Your task to perform on an android device: Go to CNN.com Image 0: 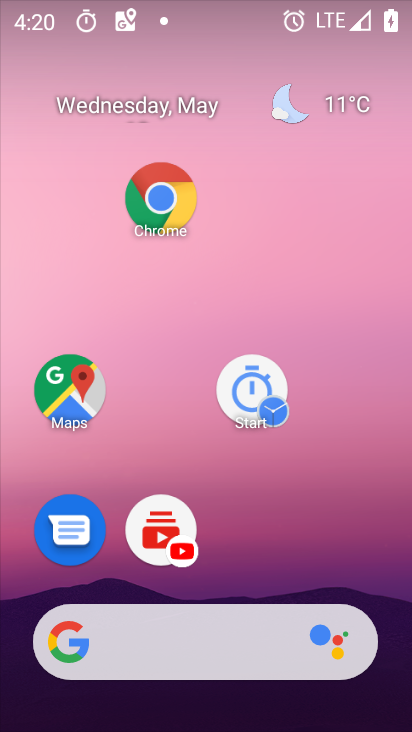
Step 0: drag from (256, 720) to (86, 98)
Your task to perform on an android device: Go to CNN.com Image 1: 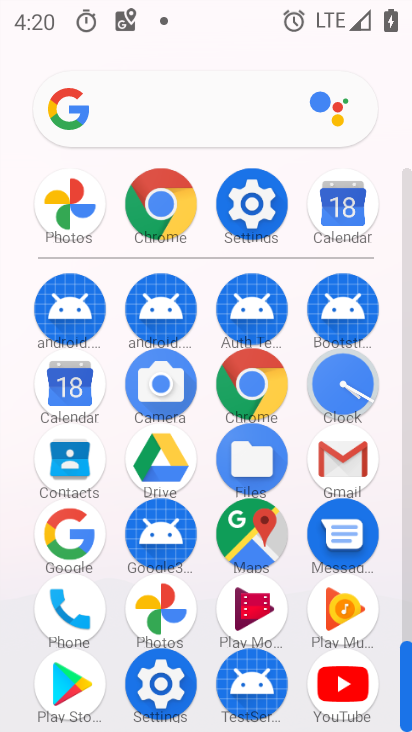
Step 1: click (166, 212)
Your task to perform on an android device: Go to CNN.com Image 2: 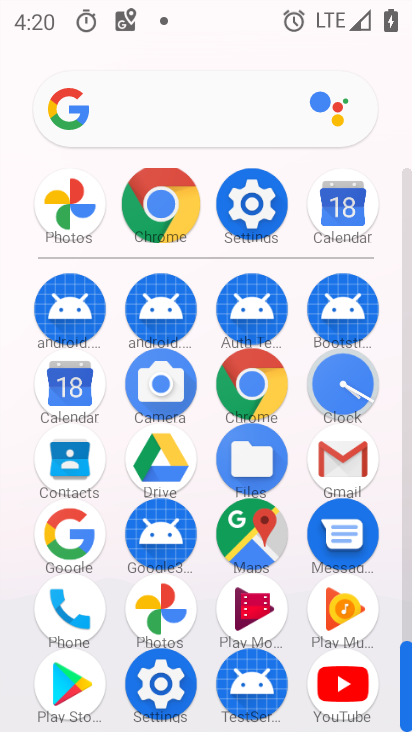
Step 2: click (166, 212)
Your task to perform on an android device: Go to CNN.com Image 3: 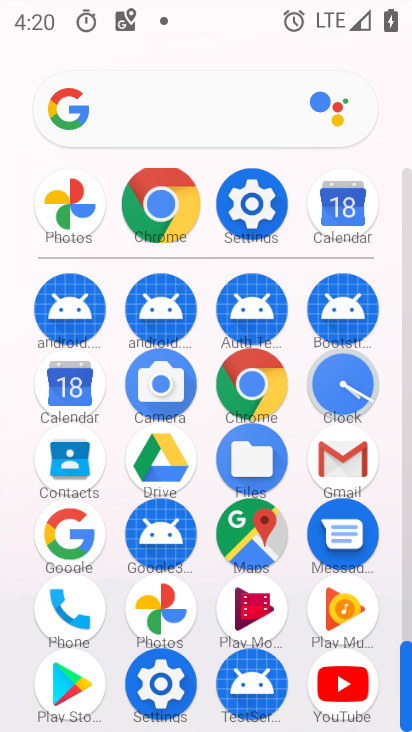
Step 3: click (166, 212)
Your task to perform on an android device: Go to CNN.com Image 4: 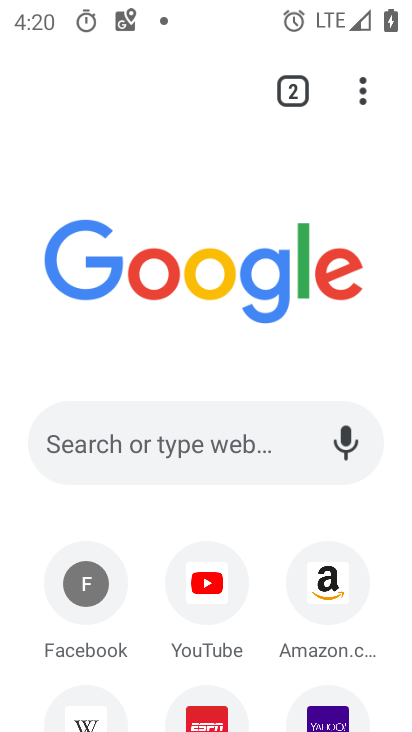
Step 4: click (62, 445)
Your task to perform on an android device: Go to CNN.com Image 5: 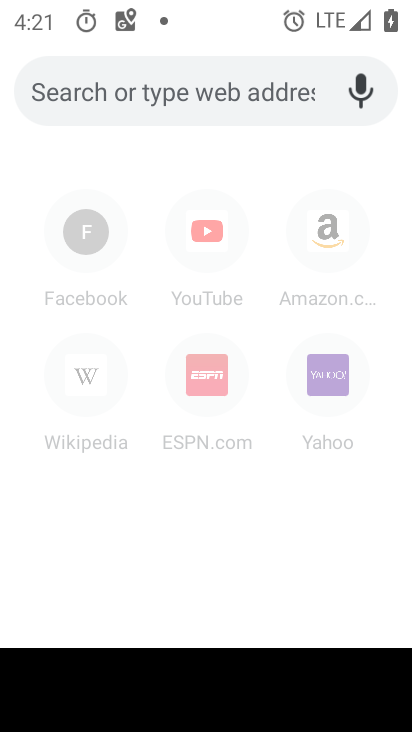
Step 5: type "cnn."
Your task to perform on an android device: Go to CNN.com Image 6: 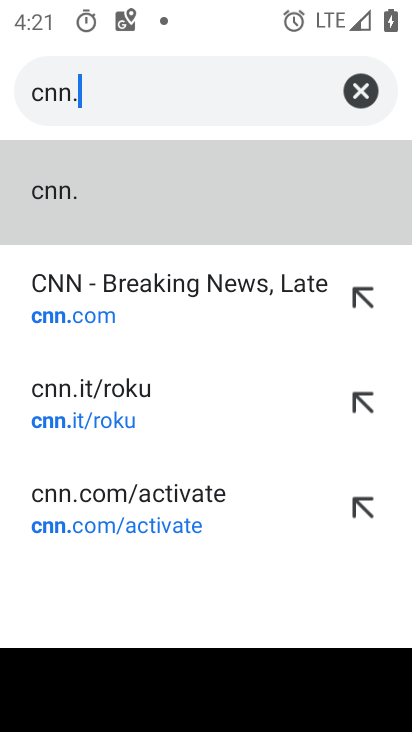
Step 6: click (29, 295)
Your task to perform on an android device: Go to CNN.com Image 7: 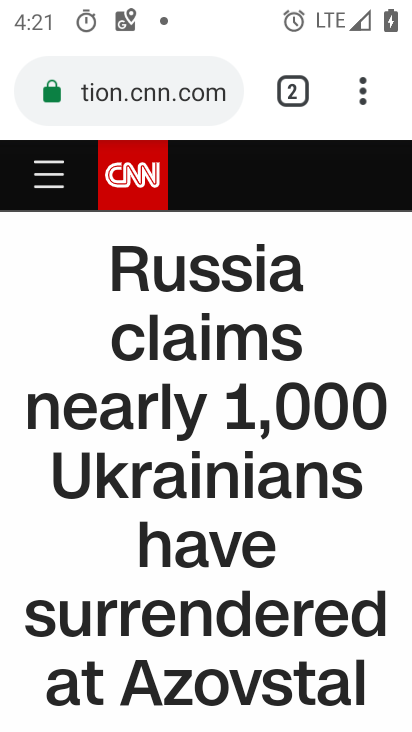
Step 7: task complete